Your task to perform on an android device: turn on javascript in the chrome app Image 0: 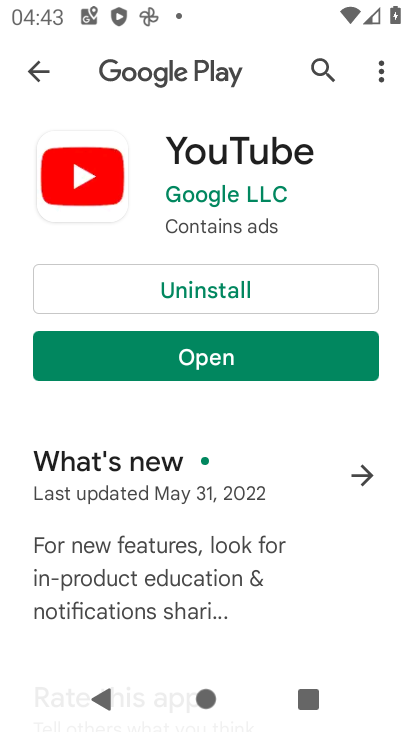
Step 0: press home button
Your task to perform on an android device: turn on javascript in the chrome app Image 1: 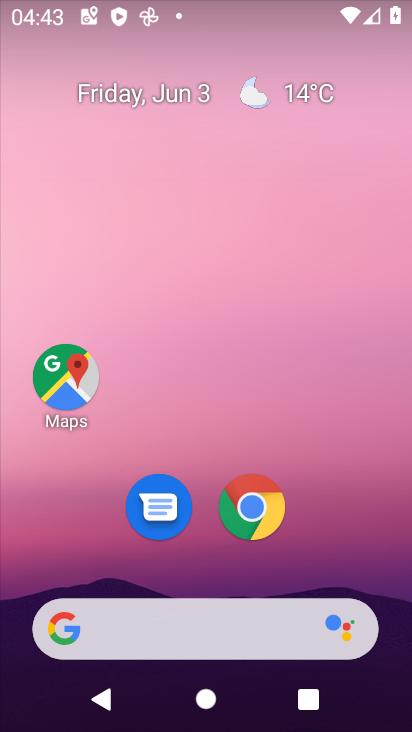
Step 1: drag from (369, 566) to (323, 4)
Your task to perform on an android device: turn on javascript in the chrome app Image 2: 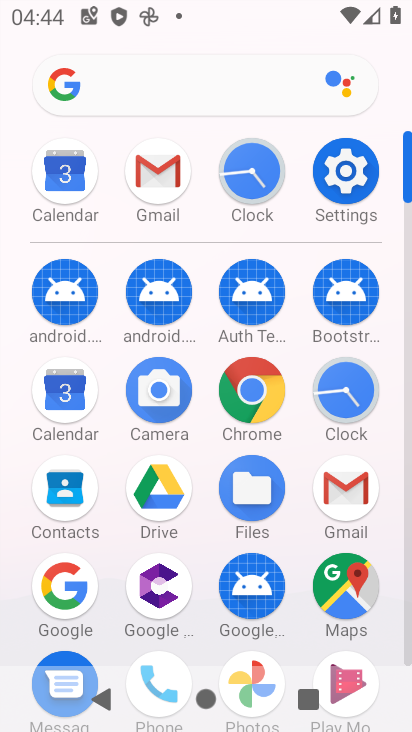
Step 2: click (255, 386)
Your task to perform on an android device: turn on javascript in the chrome app Image 3: 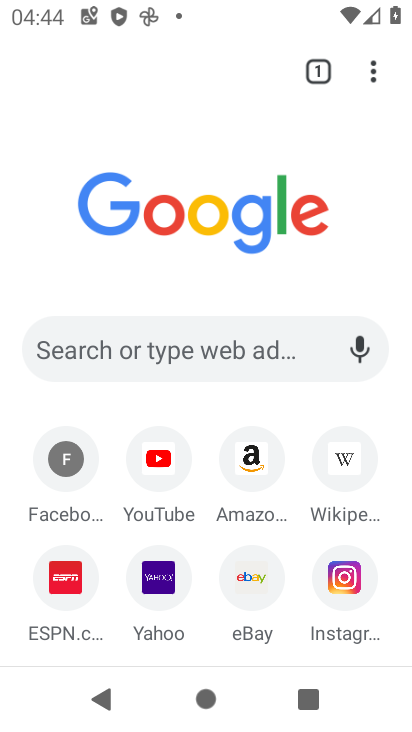
Step 3: drag from (366, 75) to (177, 507)
Your task to perform on an android device: turn on javascript in the chrome app Image 4: 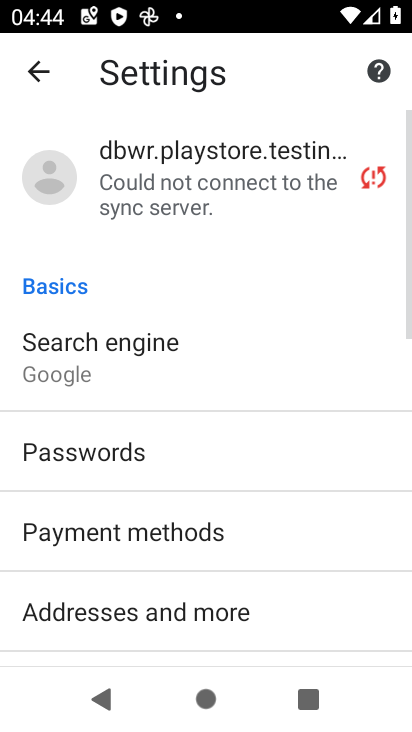
Step 4: drag from (319, 625) to (249, 230)
Your task to perform on an android device: turn on javascript in the chrome app Image 5: 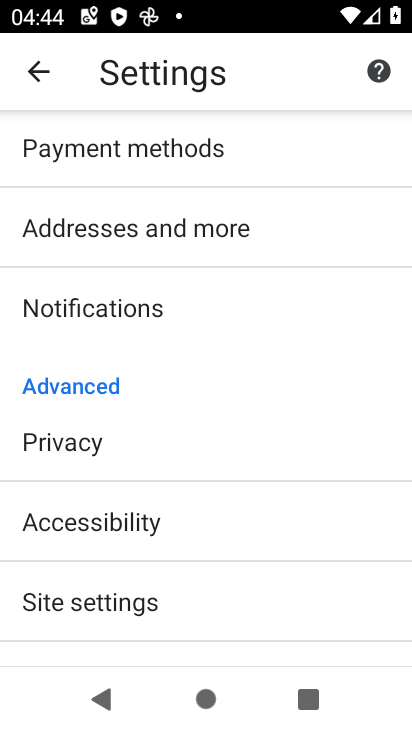
Step 5: click (189, 597)
Your task to perform on an android device: turn on javascript in the chrome app Image 6: 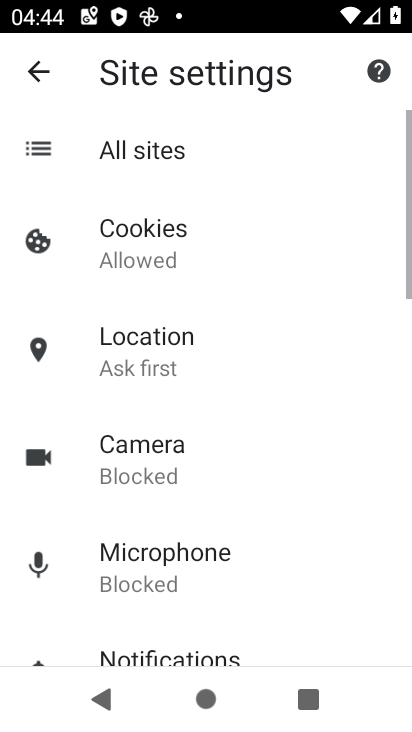
Step 6: drag from (341, 630) to (286, 138)
Your task to perform on an android device: turn on javascript in the chrome app Image 7: 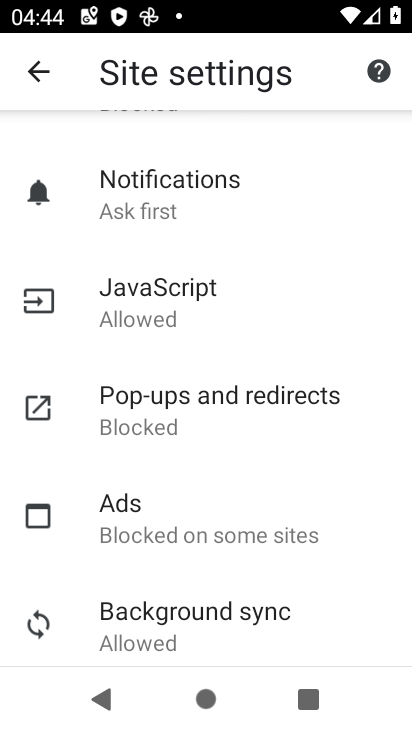
Step 7: click (178, 308)
Your task to perform on an android device: turn on javascript in the chrome app Image 8: 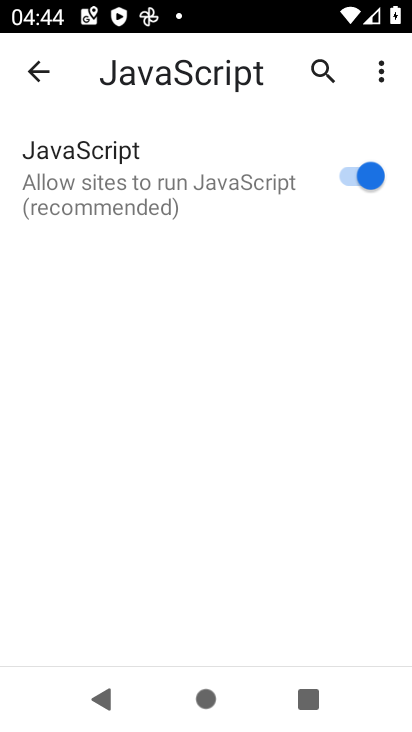
Step 8: task complete